Your task to perform on an android device: Open calendar and show me the first week of next month Image 0: 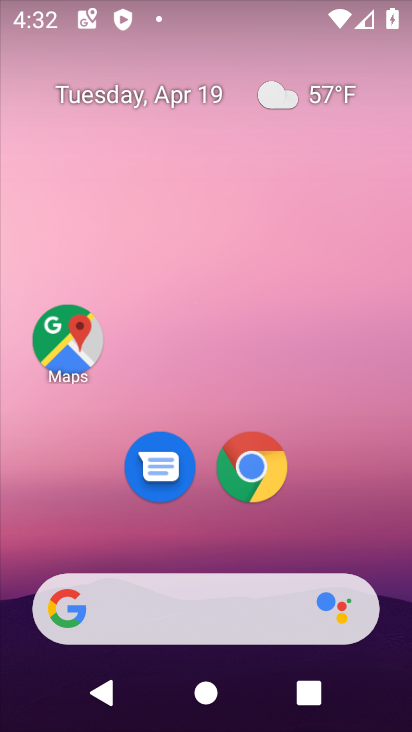
Step 0: drag from (228, 624) to (218, 215)
Your task to perform on an android device: Open calendar and show me the first week of next month Image 1: 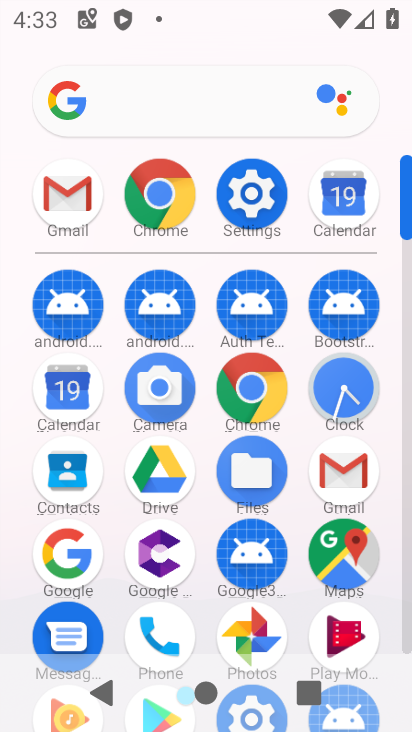
Step 1: click (82, 409)
Your task to perform on an android device: Open calendar and show me the first week of next month Image 2: 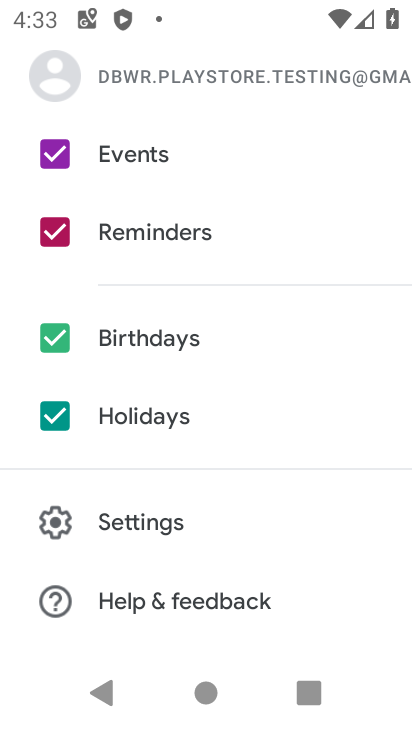
Step 2: task complete